Your task to perform on an android device: turn on airplane mode Image 0: 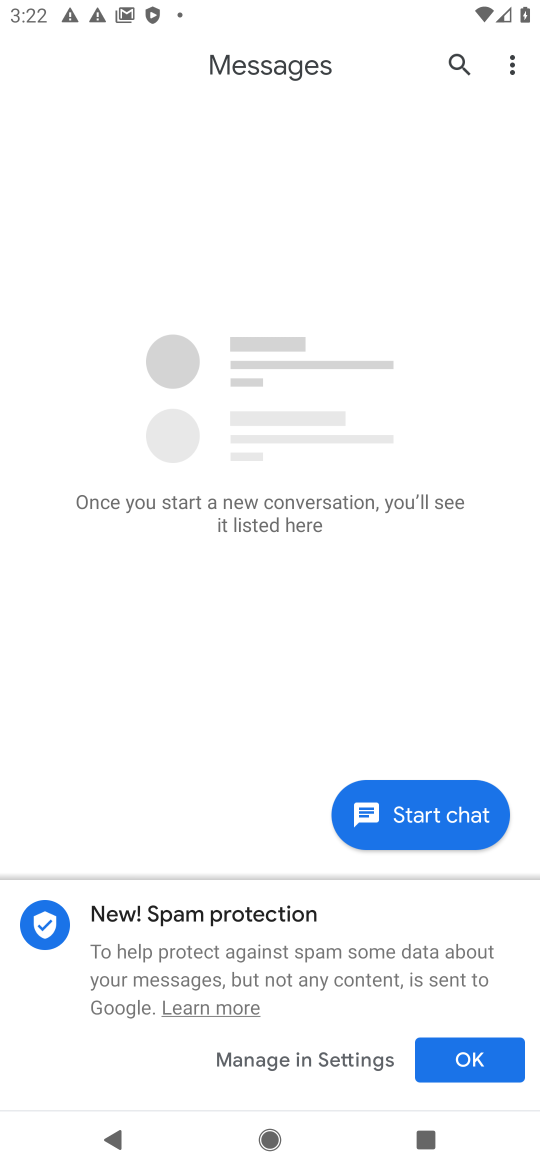
Step 0: press home button
Your task to perform on an android device: turn on airplane mode Image 1: 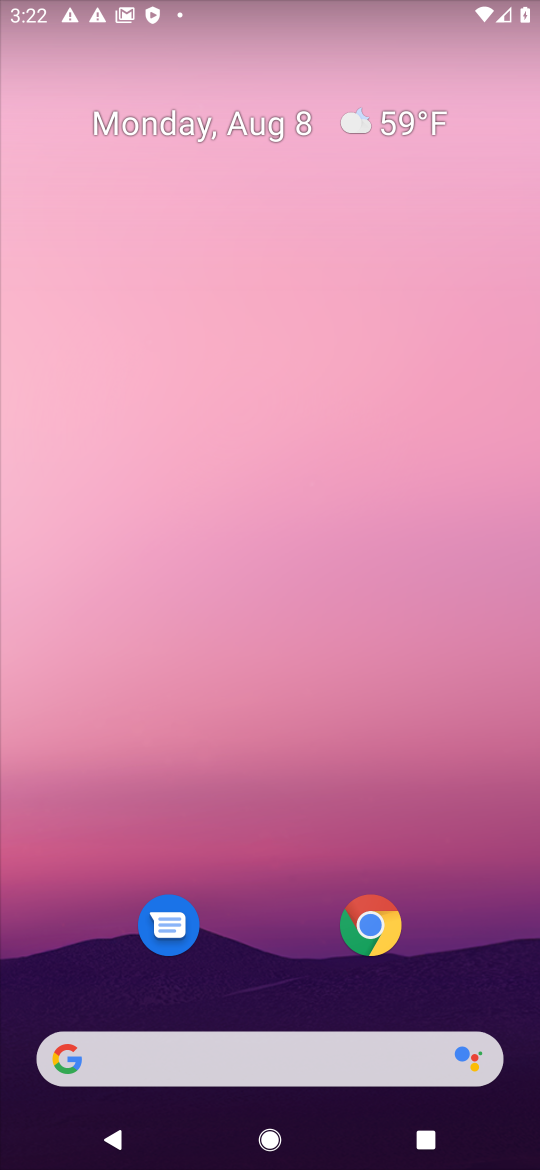
Step 1: drag from (284, 967) to (322, 160)
Your task to perform on an android device: turn on airplane mode Image 2: 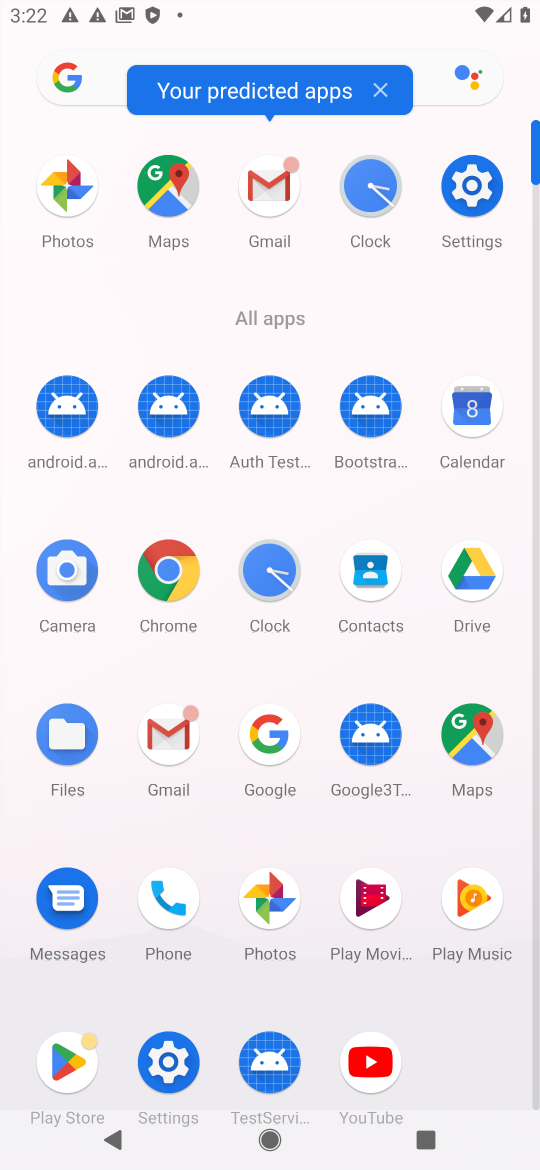
Step 2: click (476, 176)
Your task to perform on an android device: turn on airplane mode Image 3: 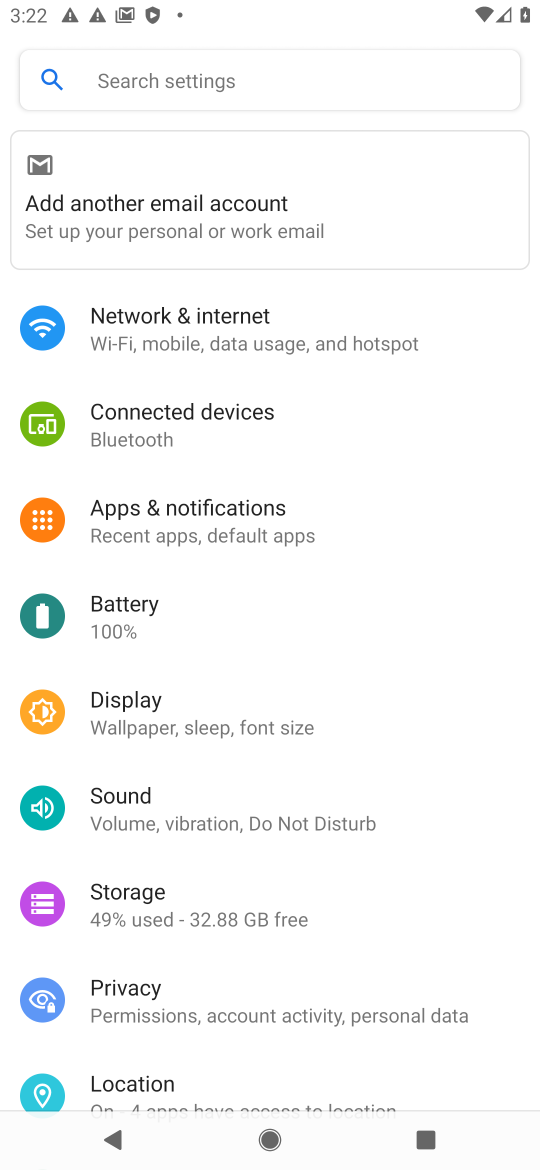
Step 3: click (152, 323)
Your task to perform on an android device: turn on airplane mode Image 4: 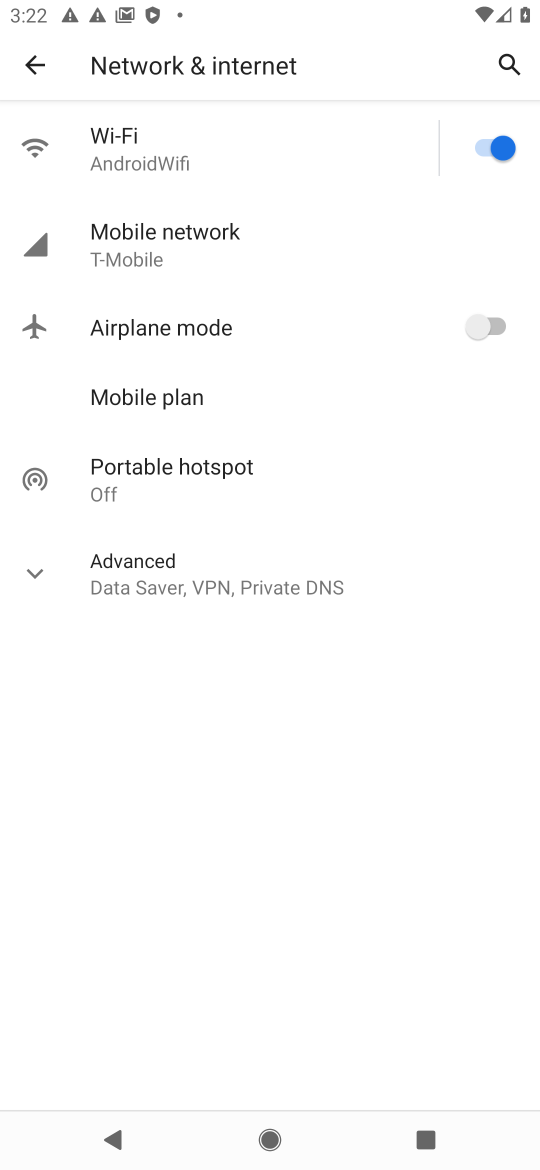
Step 4: click (489, 313)
Your task to perform on an android device: turn on airplane mode Image 5: 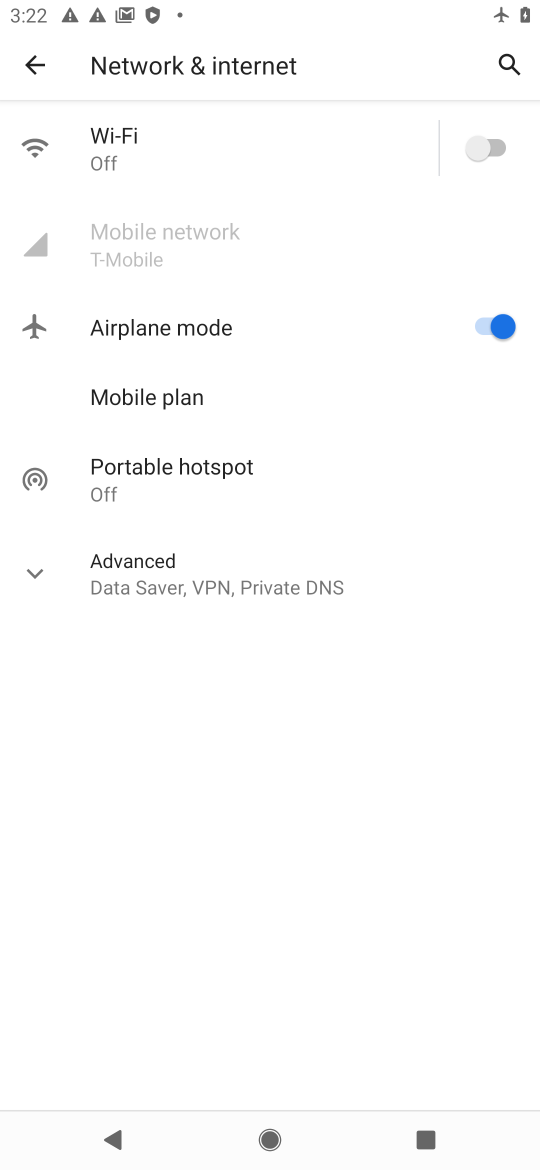
Step 5: task complete